Your task to perform on an android device: toggle airplane mode Image 0: 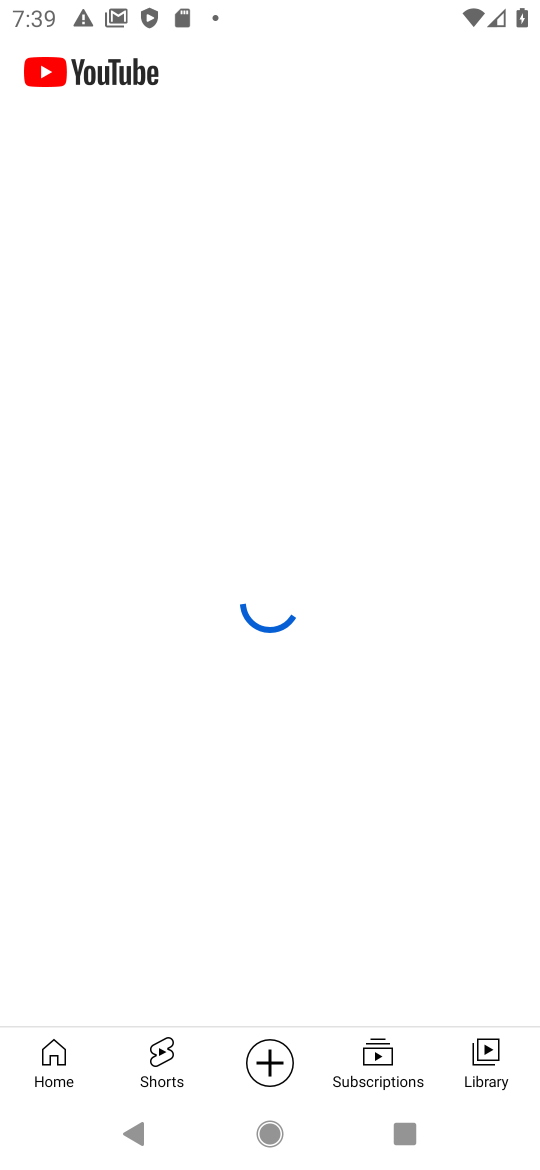
Step 0: press home button
Your task to perform on an android device: toggle airplane mode Image 1: 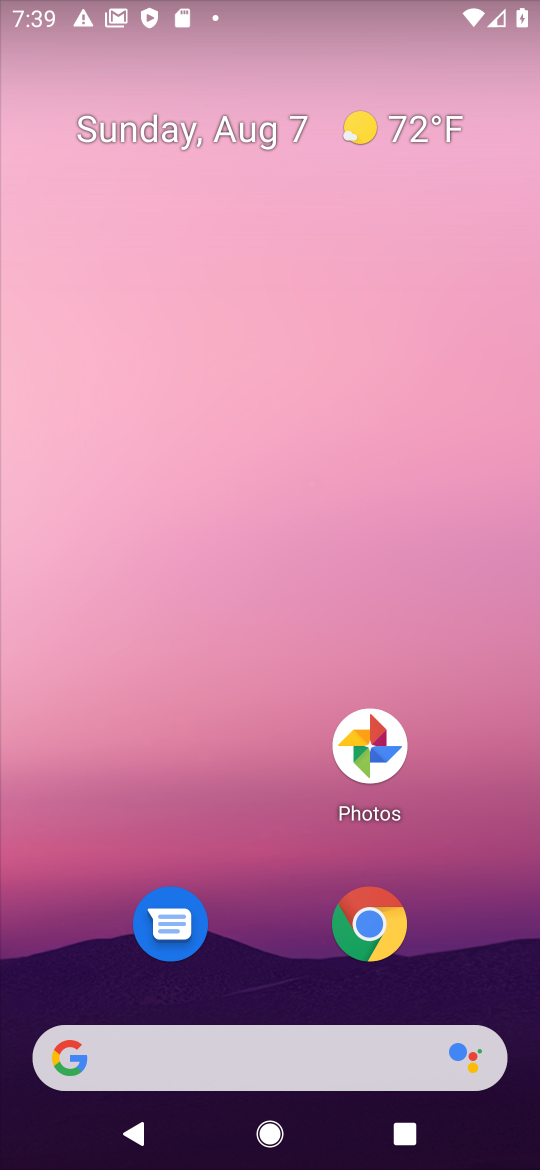
Step 1: drag from (302, 1071) to (362, 354)
Your task to perform on an android device: toggle airplane mode Image 2: 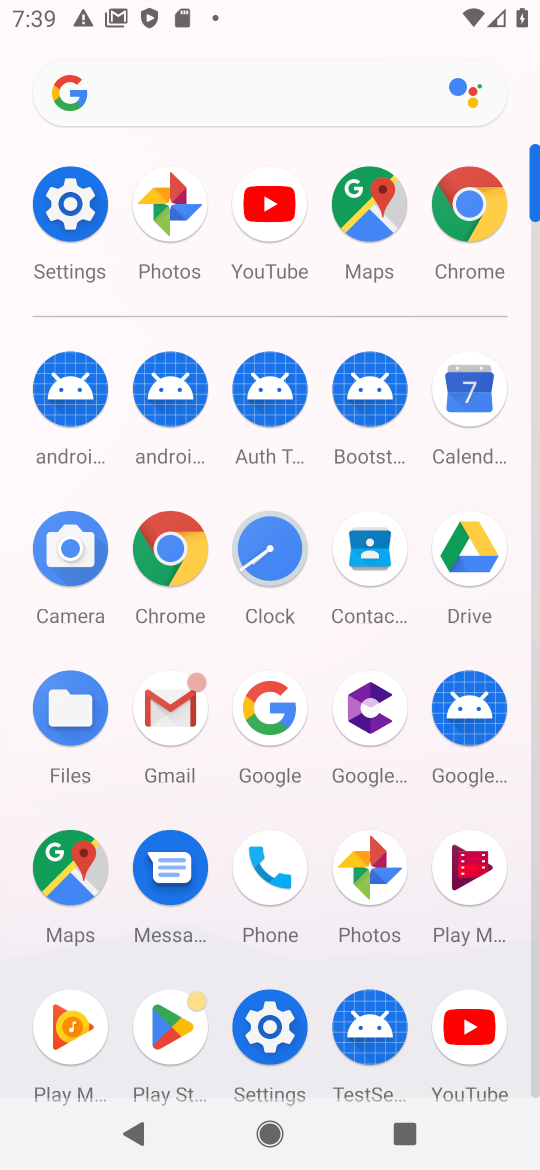
Step 2: click (65, 194)
Your task to perform on an android device: toggle airplane mode Image 3: 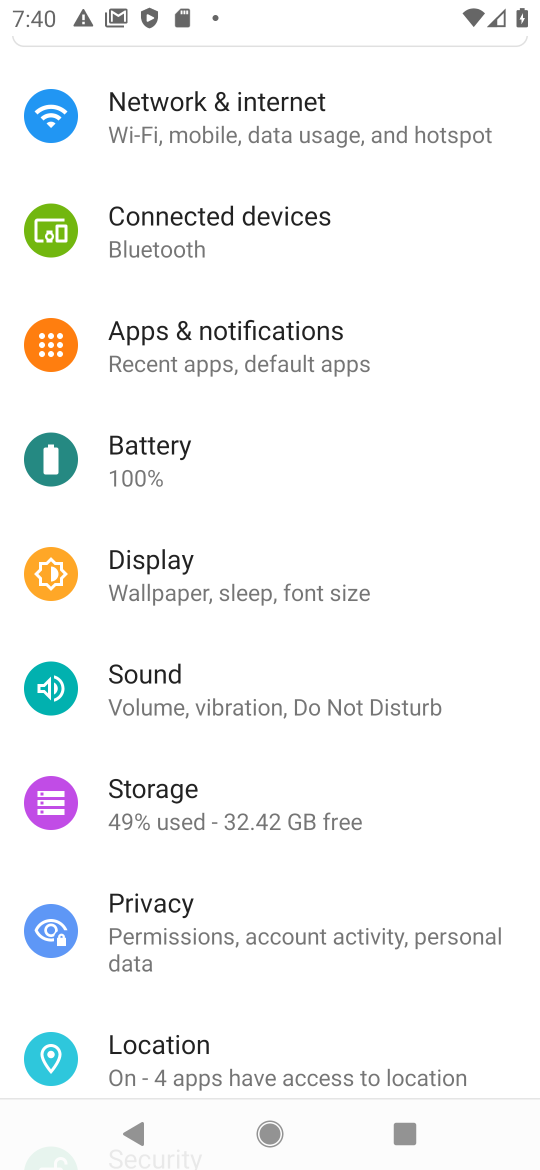
Step 3: click (252, 127)
Your task to perform on an android device: toggle airplane mode Image 4: 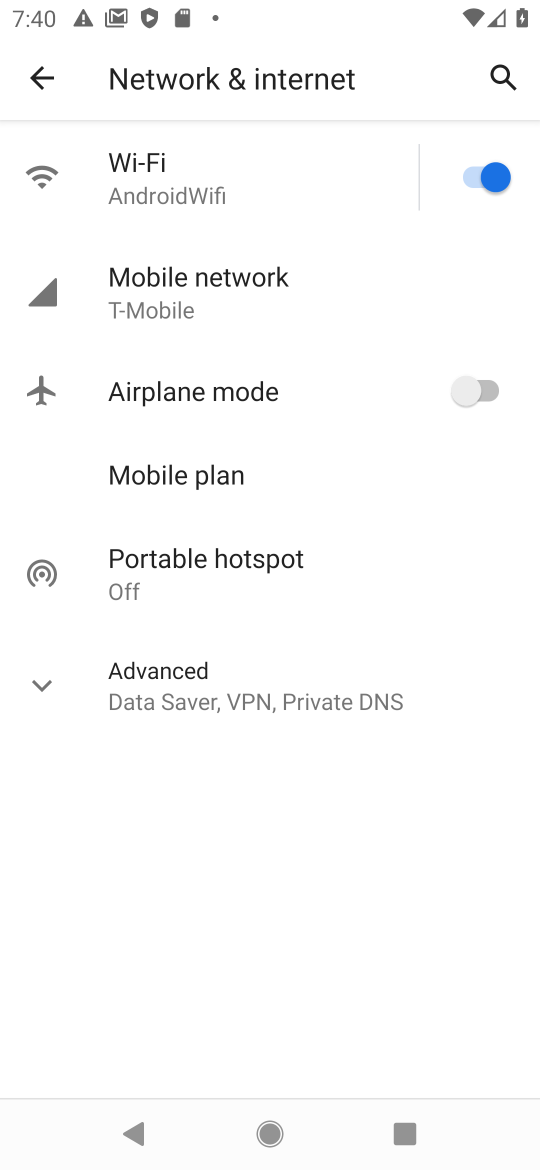
Step 4: click (360, 388)
Your task to perform on an android device: toggle airplane mode Image 5: 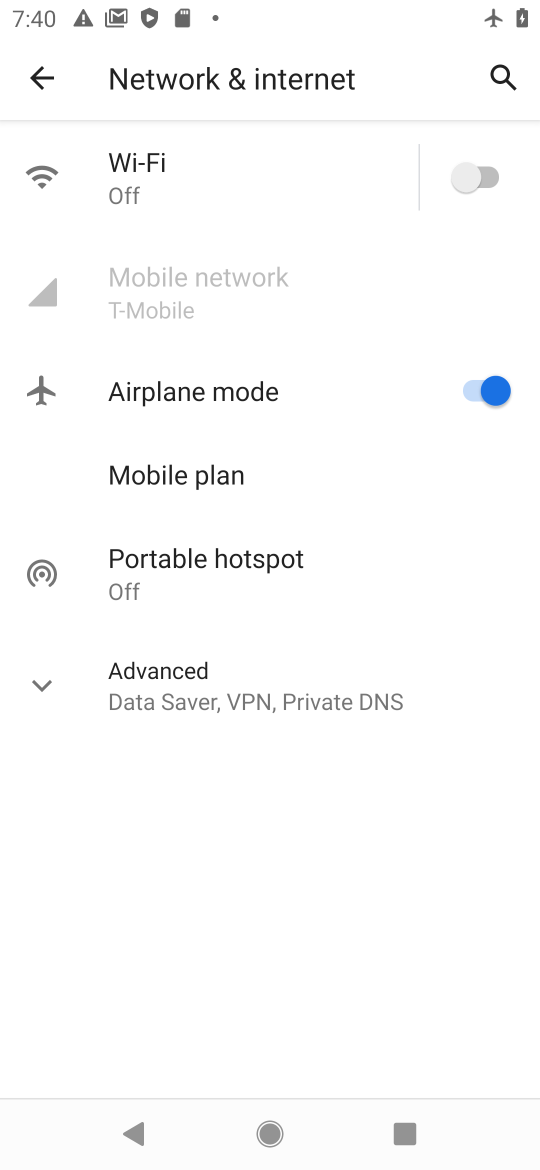
Step 5: click (360, 388)
Your task to perform on an android device: toggle airplane mode Image 6: 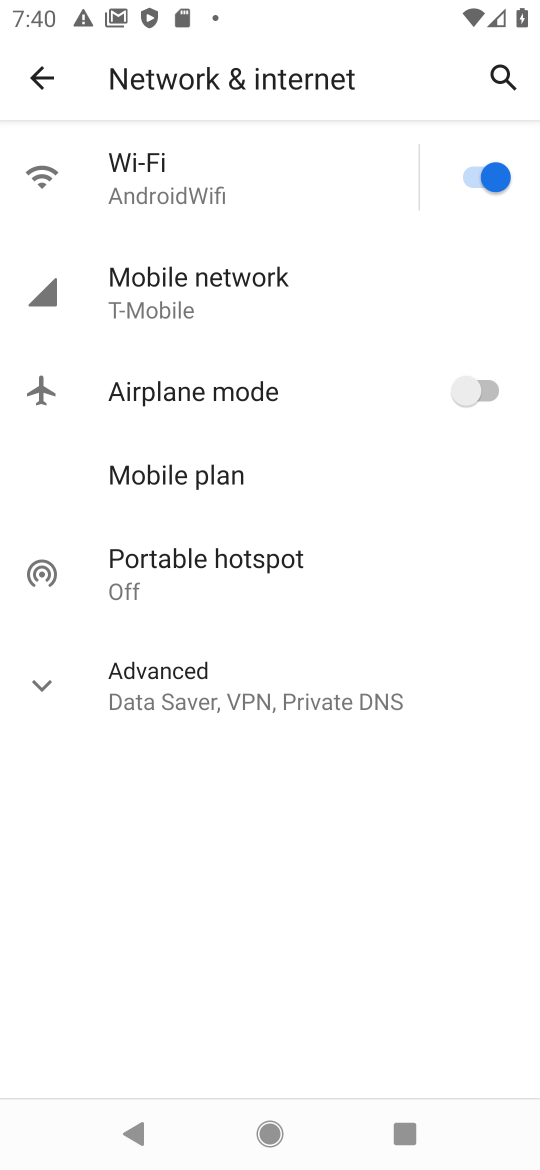
Step 6: task complete